Your task to perform on an android device: Open Google Maps Image 0: 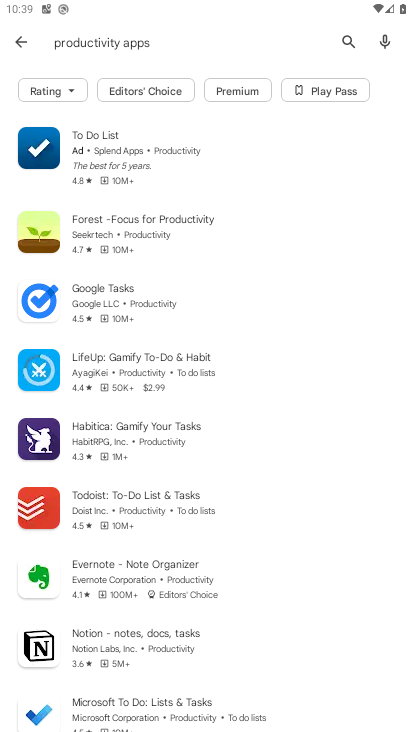
Step 0: press home button
Your task to perform on an android device: Open Google Maps Image 1: 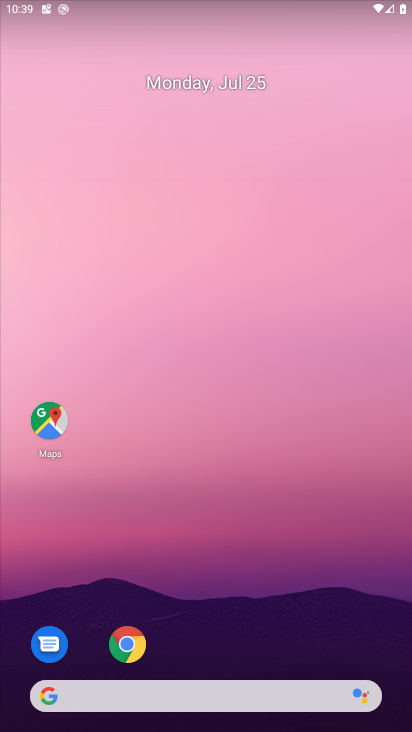
Step 1: click (137, 631)
Your task to perform on an android device: Open Google Maps Image 2: 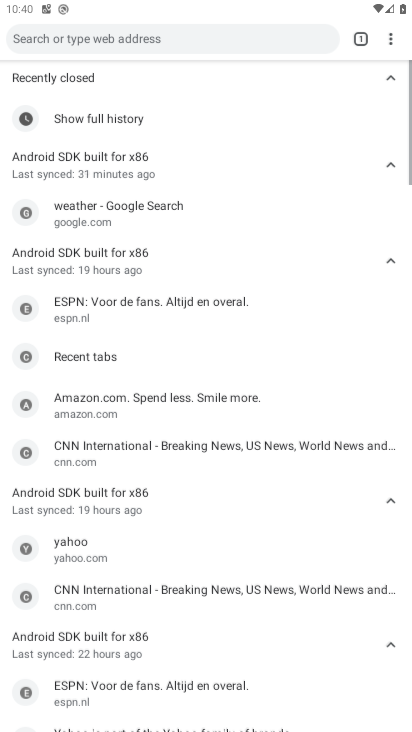
Step 2: press home button
Your task to perform on an android device: Open Google Maps Image 3: 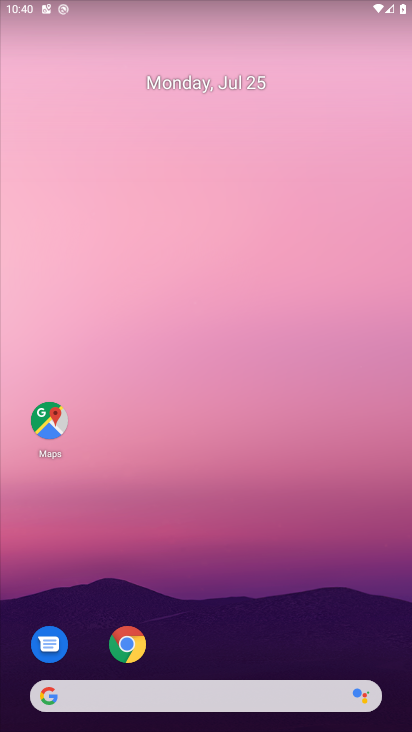
Step 3: click (51, 421)
Your task to perform on an android device: Open Google Maps Image 4: 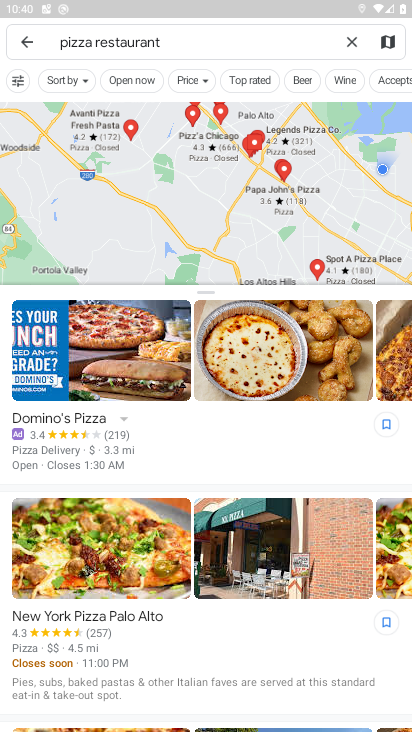
Step 4: task complete